Your task to perform on an android device: Open Google Maps Image 0: 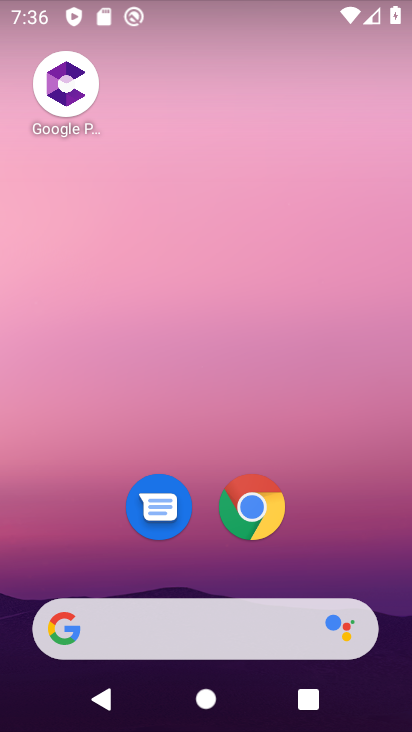
Step 0: drag from (309, 350) to (233, 24)
Your task to perform on an android device: Open Google Maps Image 1: 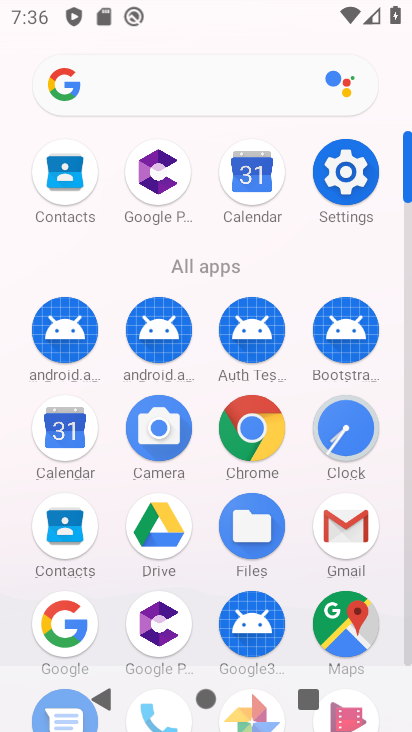
Step 1: click (344, 615)
Your task to perform on an android device: Open Google Maps Image 2: 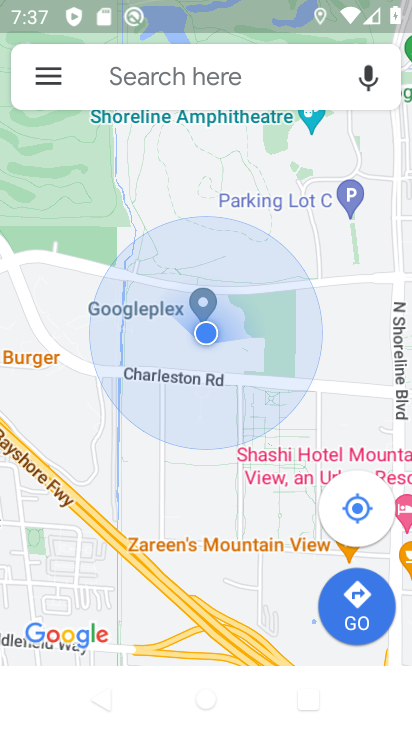
Step 2: task complete